Your task to perform on an android device: Show me productivity apps on the Play Store Image 0: 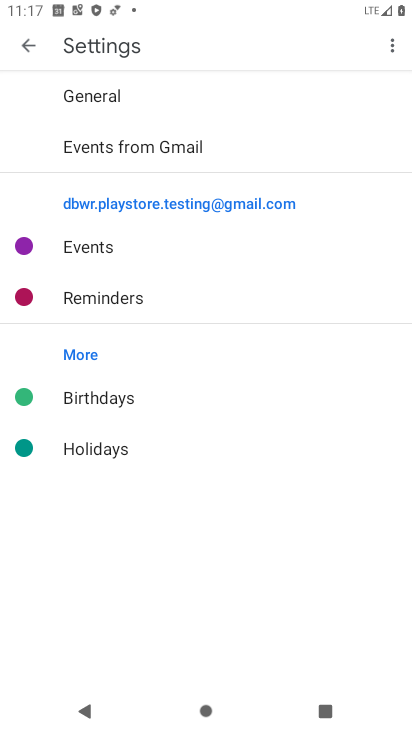
Step 0: press home button
Your task to perform on an android device: Show me productivity apps on the Play Store Image 1: 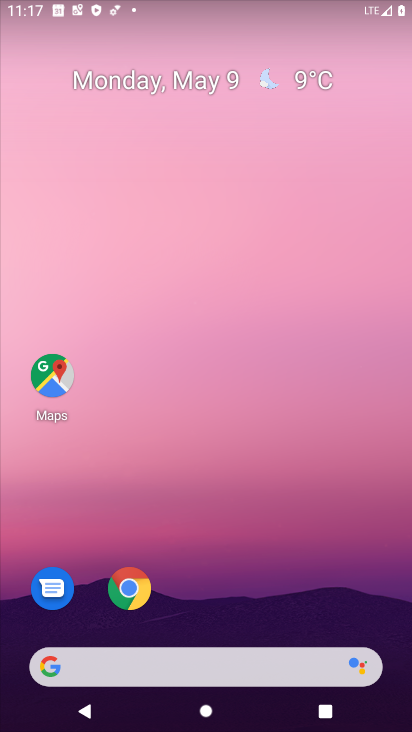
Step 1: drag from (231, 658) to (369, 213)
Your task to perform on an android device: Show me productivity apps on the Play Store Image 2: 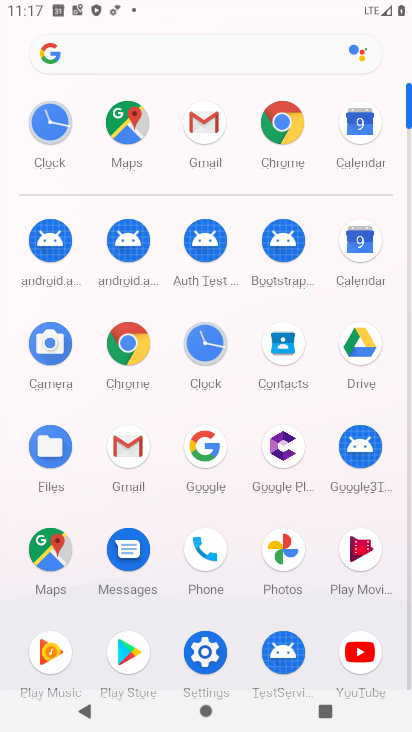
Step 2: click (126, 659)
Your task to perform on an android device: Show me productivity apps on the Play Store Image 3: 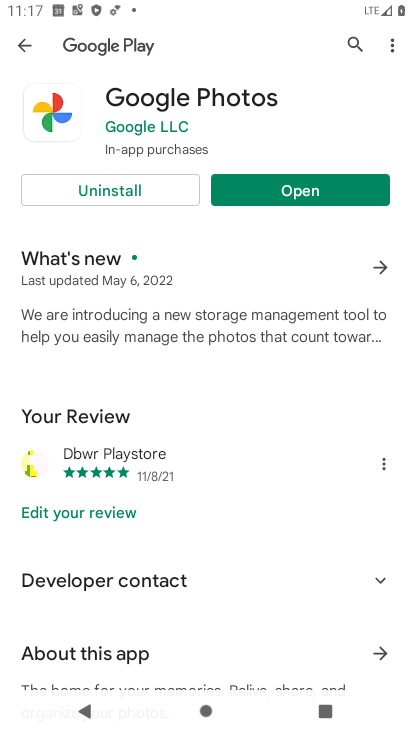
Step 3: click (22, 38)
Your task to perform on an android device: Show me productivity apps on the Play Store Image 4: 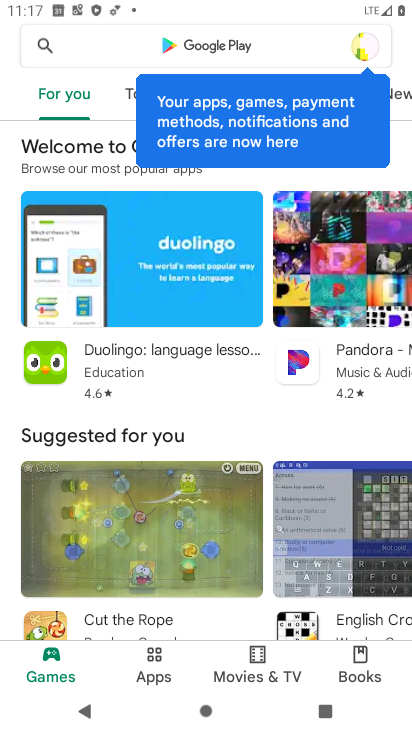
Step 4: click (149, 662)
Your task to perform on an android device: Show me productivity apps on the Play Store Image 5: 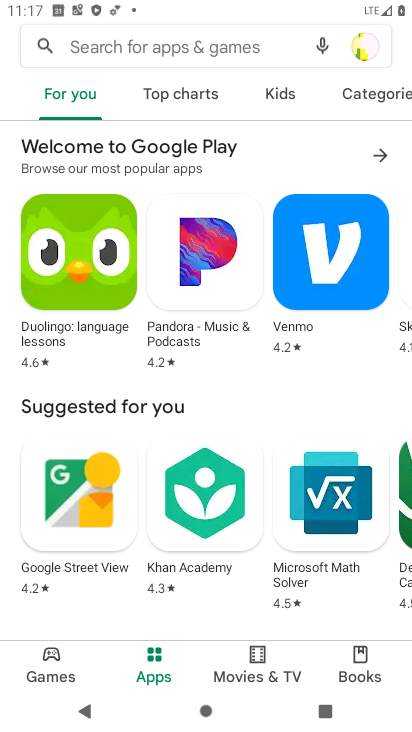
Step 5: click (357, 90)
Your task to perform on an android device: Show me productivity apps on the Play Store Image 6: 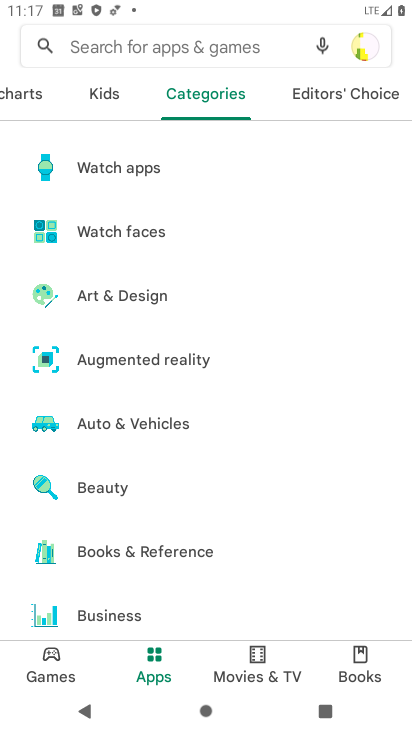
Step 6: drag from (206, 609) to (364, 106)
Your task to perform on an android device: Show me productivity apps on the Play Store Image 7: 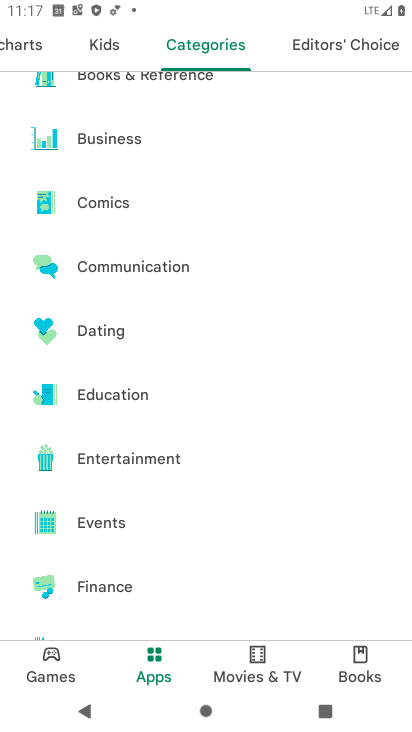
Step 7: drag from (202, 543) to (332, 84)
Your task to perform on an android device: Show me productivity apps on the Play Store Image 8: 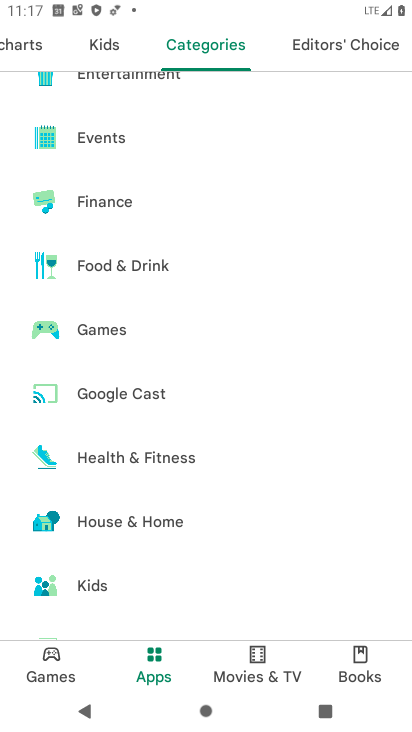
Step 8: drag from (215, 569) to (352, 82)
Your task to perform on an android device: Show me productivity apps on the Play Store Image 9: 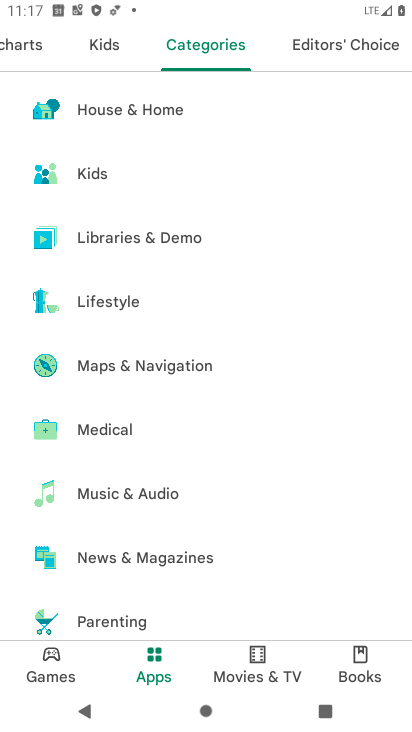
Step 9: drag from (242, 500) to (346, 170)
Your task to perform on an android device: Show me productivity apps on the Play Store Image 10: 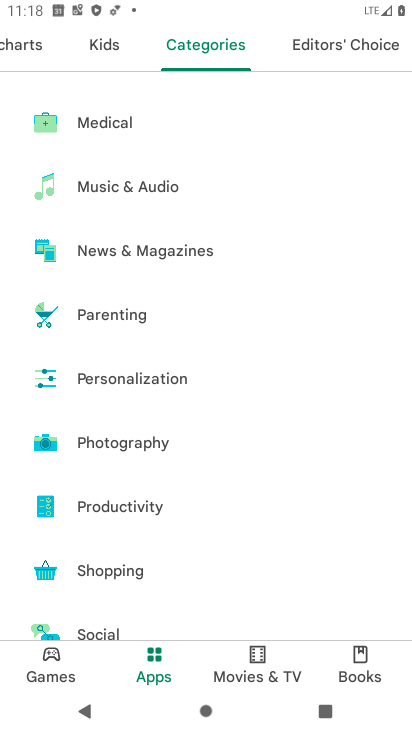
Step 10: click (138, 506)
Your task to perform on an android device: Show me productivity apps on the Play Store Image 11: 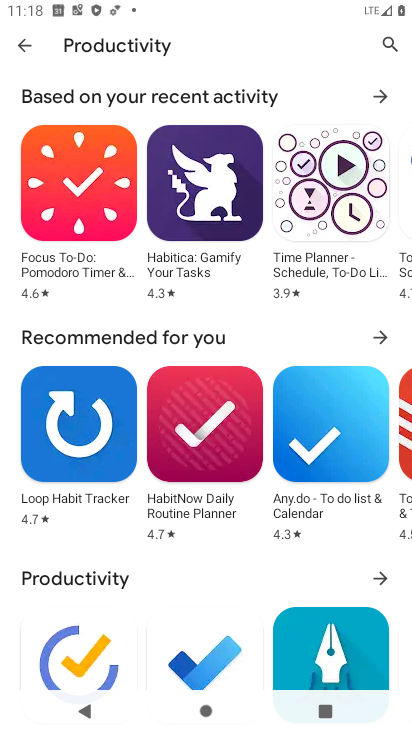
Step 11: task complete